Your task to perform on an android device: Open calendar and show me the fourth week of next month Image 0: 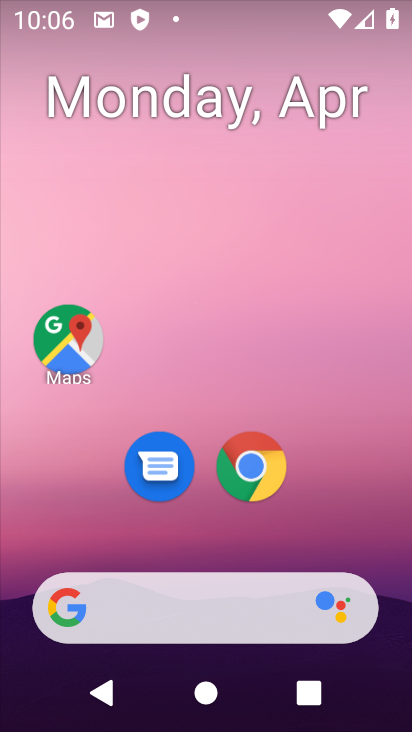
Step 0: drag from (204, 528) to (278, 24)
Your task to perform on an android device: Open calendar and show me the fourth week of next month Image 1: 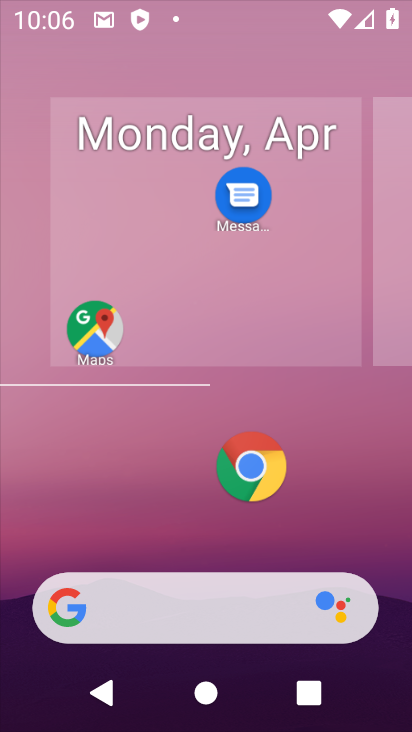
Step 1: drag from (180, 405) to (244, 68)
Your task to perform on an android device: Open calendar and show me the fourth week of next month Image 2: 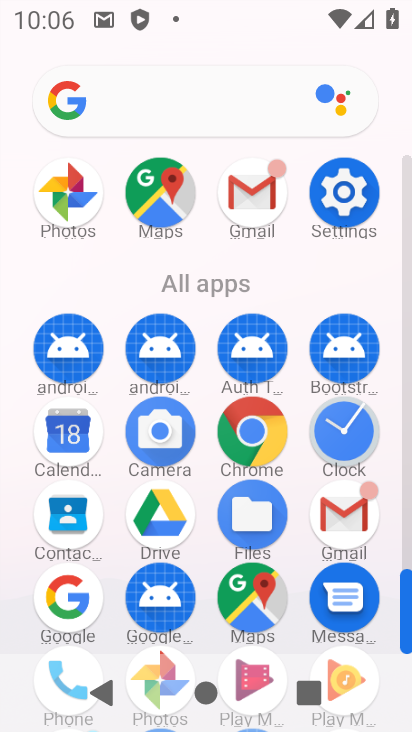
Step 2: click (55, 438)
Your task to perform on an android device: Open calendar and show me the fourth week of next month Image 3: 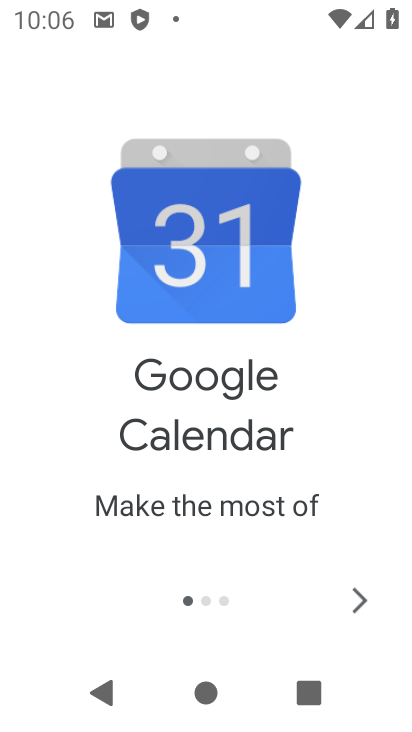
Step 3: click (357, 600)
Your task to perform on an android device: Open calendar and show me the fourth week of next month Image 4: 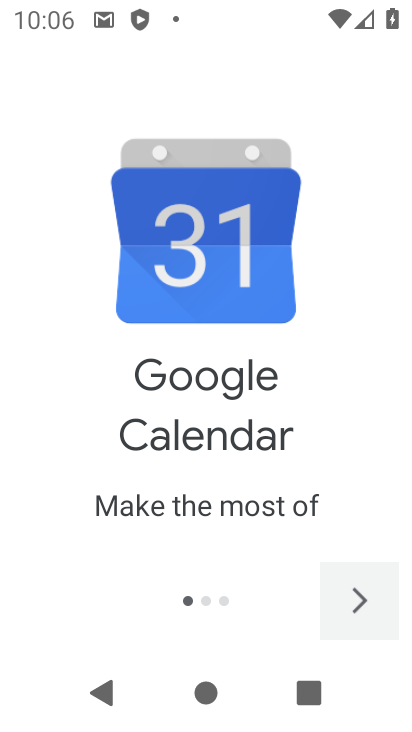
Step 4: click (357, 600)
Your task to perform on an android device: Open calendar and show me the fourth week of next month Image 5: 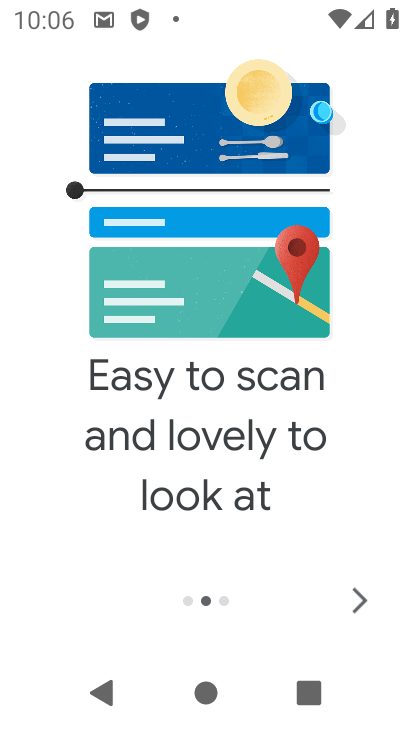
Step 5: click (357, 600)
Your task to perform on an android device: Open calendar and show me the fourth week of next month Image 6: 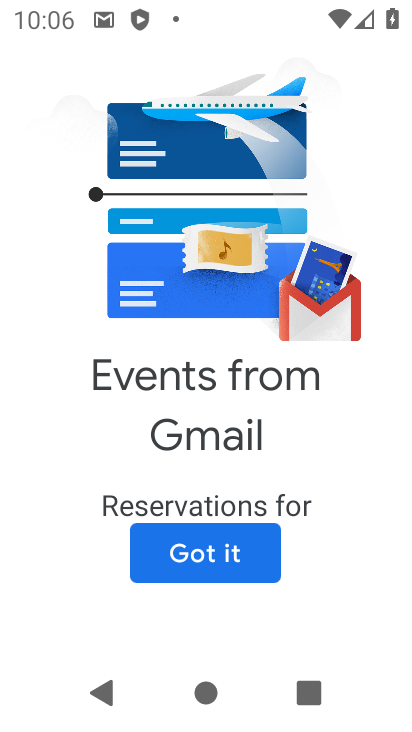
Step 6: click (357, 600)
Your task to perform on an android device: Open calendar and show me the fourth week of next month Image 7: 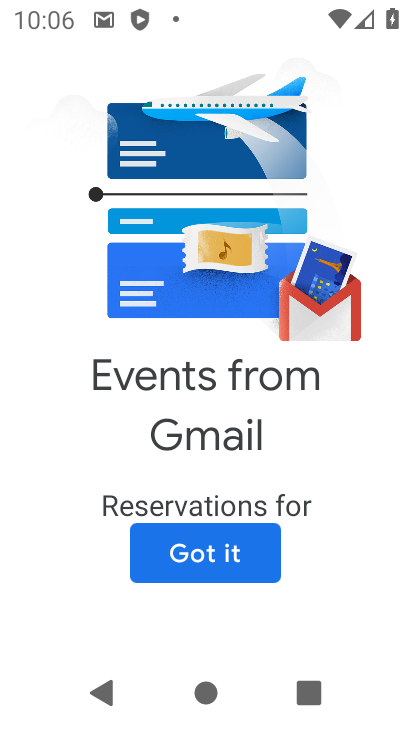
Step 7: click (206, 537)
Your task to perform on an android device: Open calendar and show me the fourth week of next month Image 8: 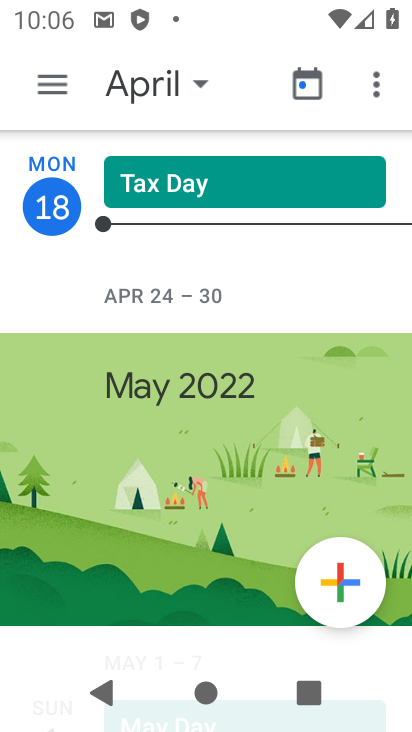
Step 8: click (191, 81)
Your task to perform on an android device: Open calendar and show me the fourth week of next month Image 9: 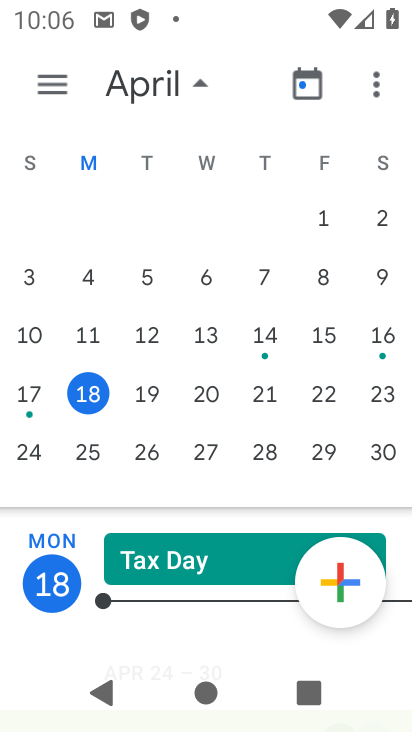
Step 9: drag from (317, 346) to (0, 123)
Your task to perform on an android device: Open calendar and show me the fourth week of next month Image 10: 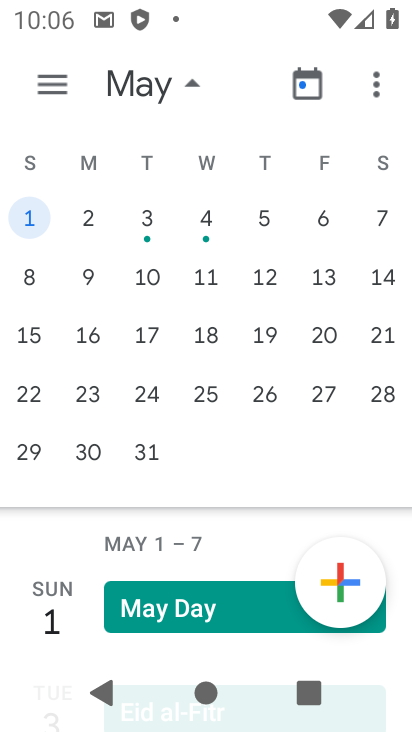
Step 10: click (64, 89)
Your task to perform on an android device: Open calendar and show me the fourth week of next month Image 11: 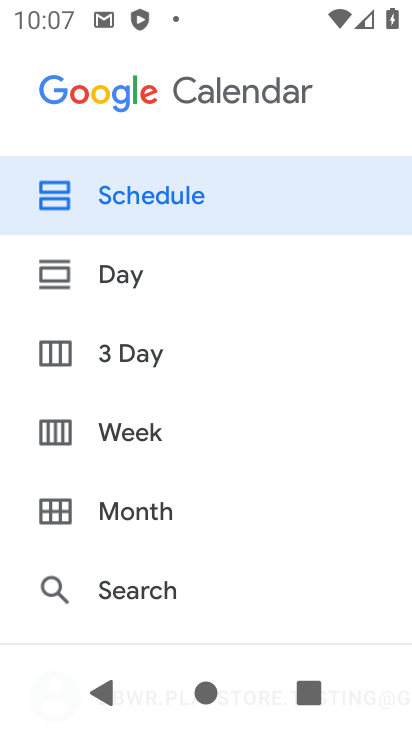
Step 11: click (125, 436)
Your task to perform on an android device: Open calendar and show me the fourth week of next month Image 12: 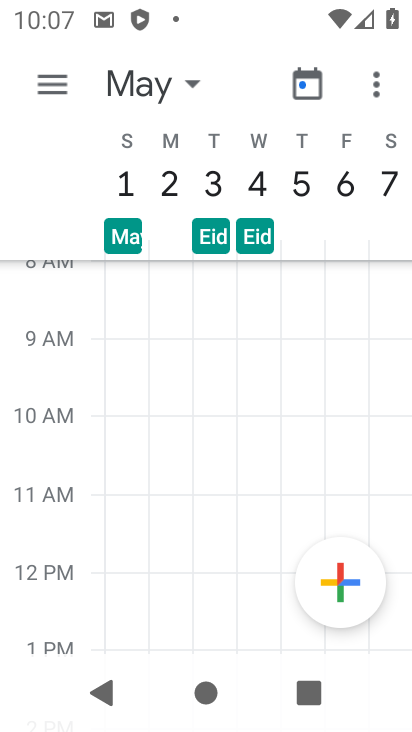
Step 12: task complete